Your task to perform on an android device: check battery use Image 0: 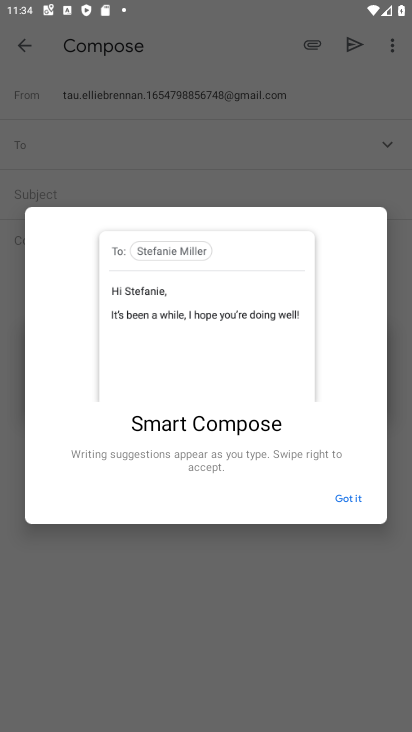
Step 0: press home button
Your task to perform on an android device: check battery use Image 1: 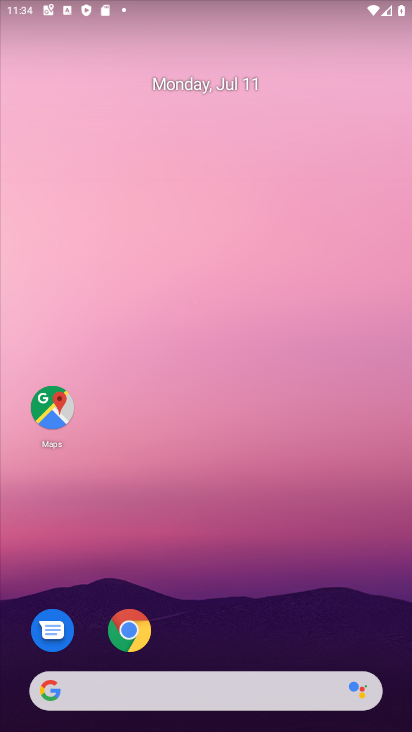
Step 1: drag from (319, 611) to (304, 170)
Your task to perform on an android device: check battery use Image 2: 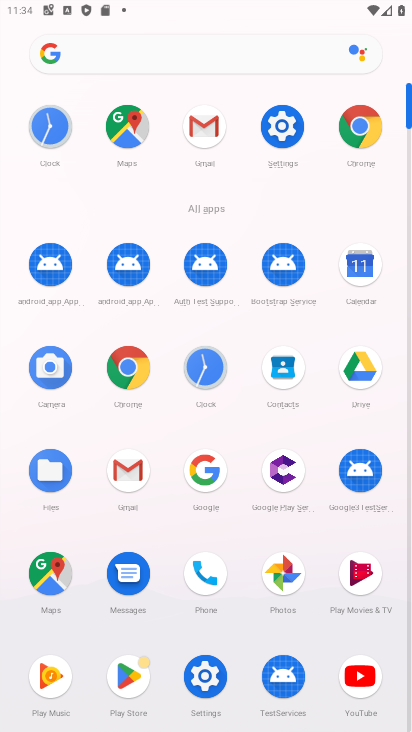
Step 2: click (207, 680)
Your task to perform on an android device: check battery use Image 3: 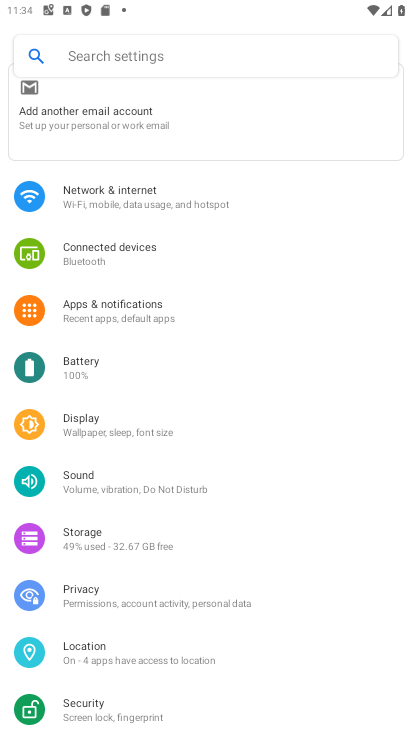
Step 3: click (74, 370)
Your task to perform on an android device: check battery use Image 4: 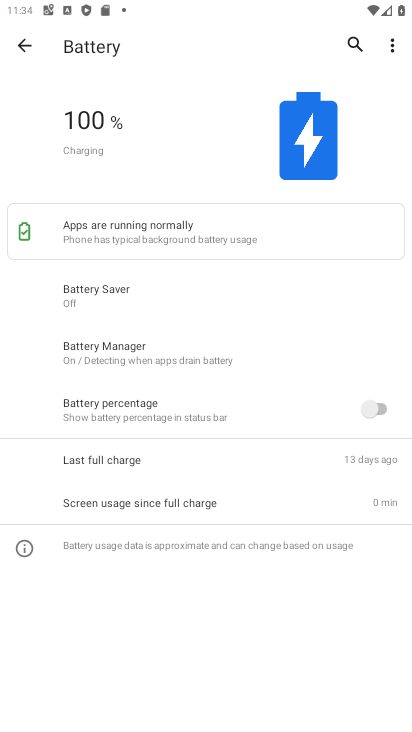
Step 4: click (387, 49)
Your task to perform on an android device: check battery use Image 5: 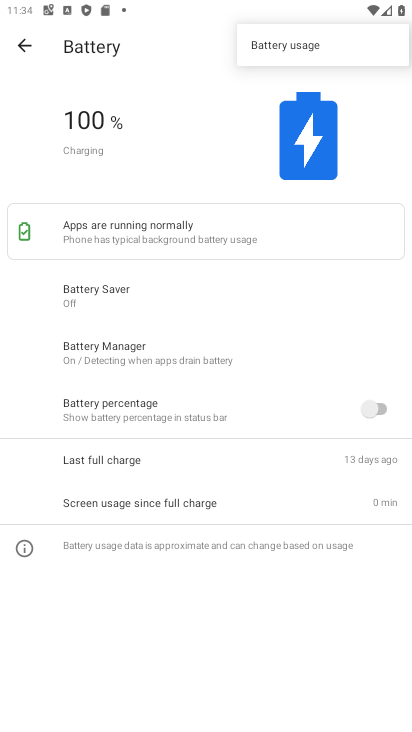
Step 5: click (294, 40)
Your task to perform on an android device: check battery use Image 6: 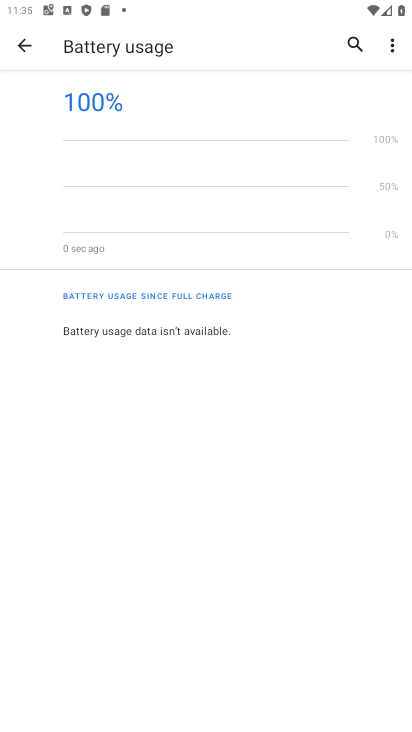
Step 6: task complete